Your task to perform on an android device: turn on showing notifications on the lock screen Image 0: 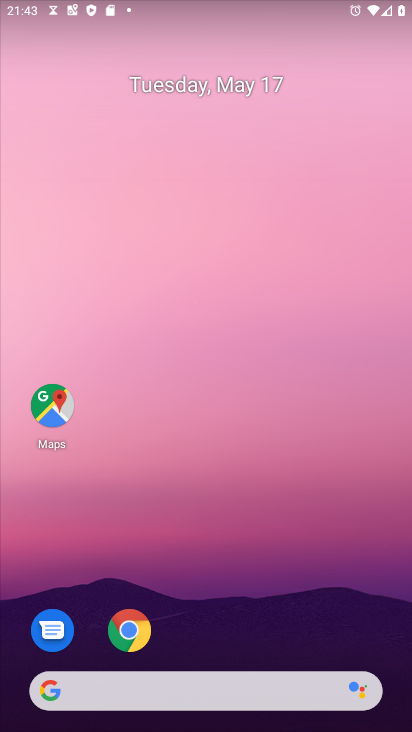
Step 0: drag from (211, 562) to (192, 107)
Your task to perform on an android device: turn on showing notifications on the lock screen Image 1: 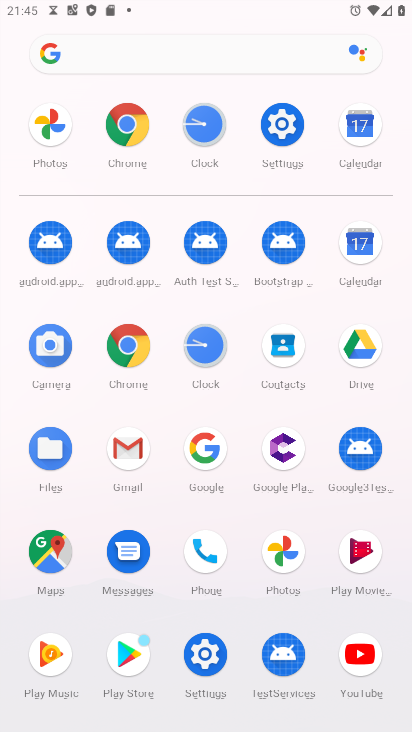
Step 1: click (204, 658)
Your task to perform on an android device: turn on showing notifications on the lock screen Image 2: 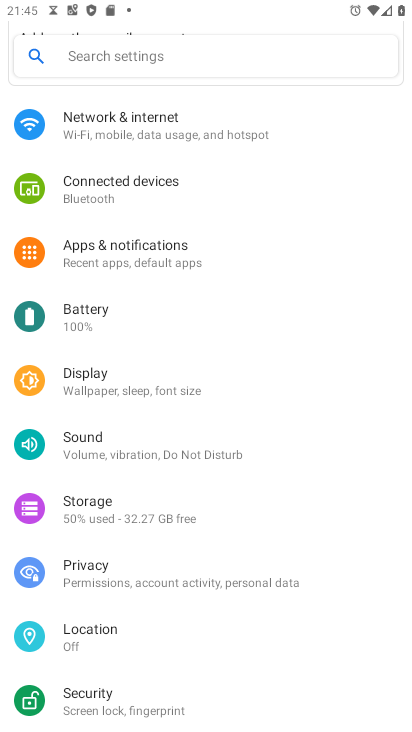
Step 2: click (133, 260)
Your task to perform on an android device: turn on showing notifications on the lock screen Image 3: 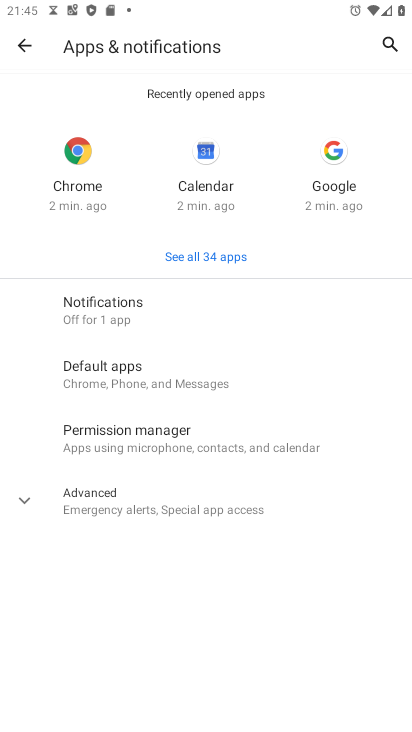
Step 3: click (123, 317)
Your task to perform on an android device: turn on showing notifications on the lock screen Image 4: 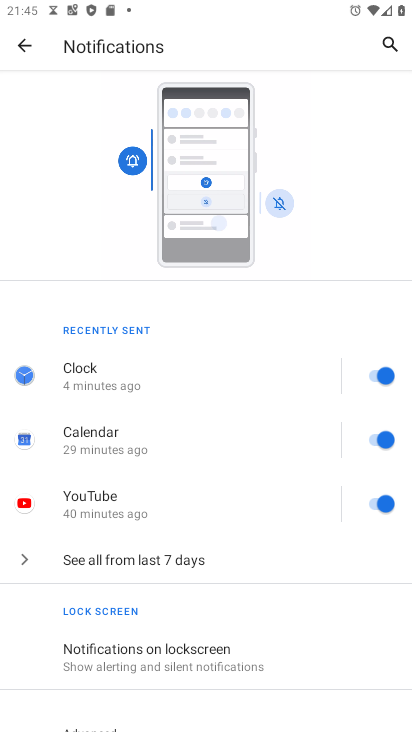
Step 4: click (134, 668)
Your task to perform on an android device: turn on showing notifications on the lock screen Image 5: 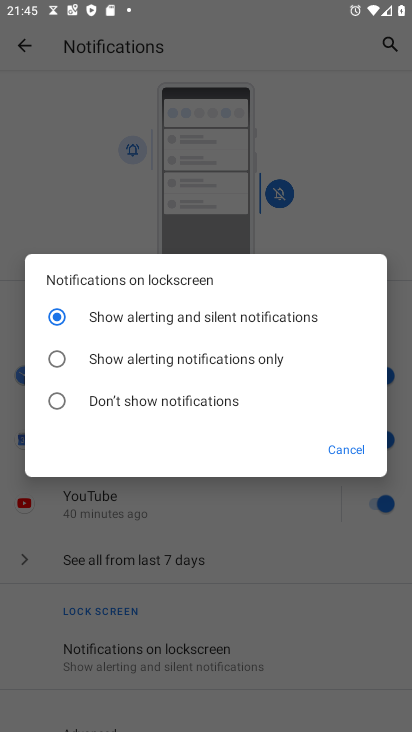
Step 5: task complete